Your task to perform on an android device: turn off sleep mode Image 0: 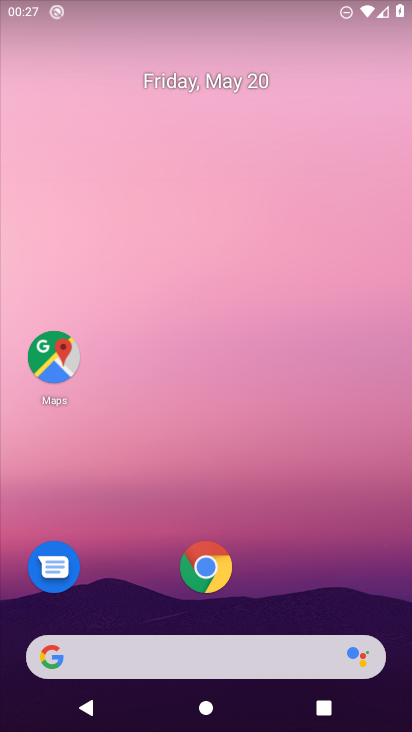
Step 0: drag from (250, 615) to (292, 45)
Your task to perform on an android device: turn off sleep mode Image 1: 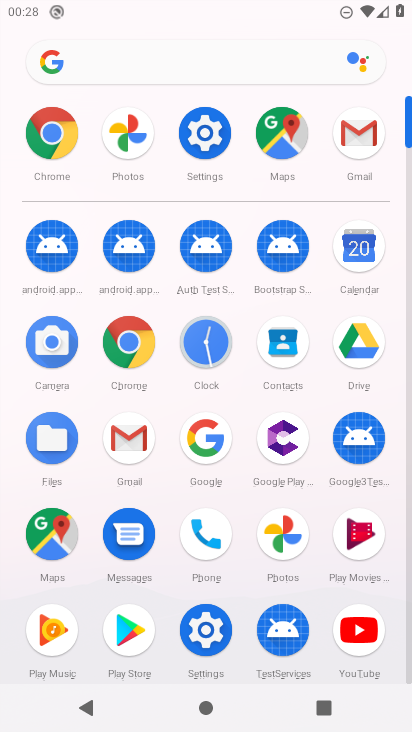
Step 1: click (205, 628)
Your task to perform on an android device: turn off sleep mode Image 2: 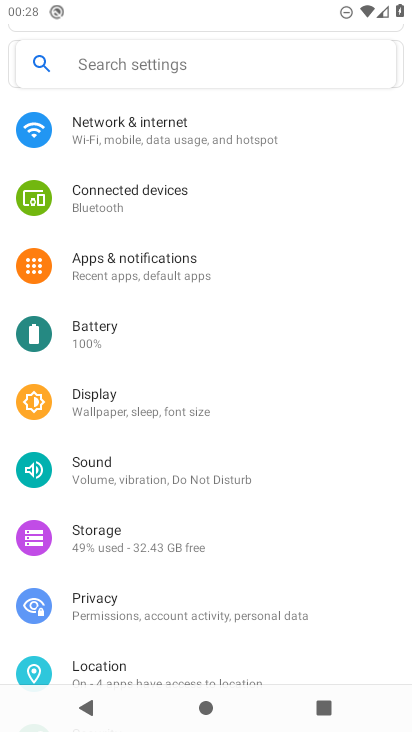
Step 2: click (123, 402)
Your task to perform on an android device: turn off sleep mode Image 3: 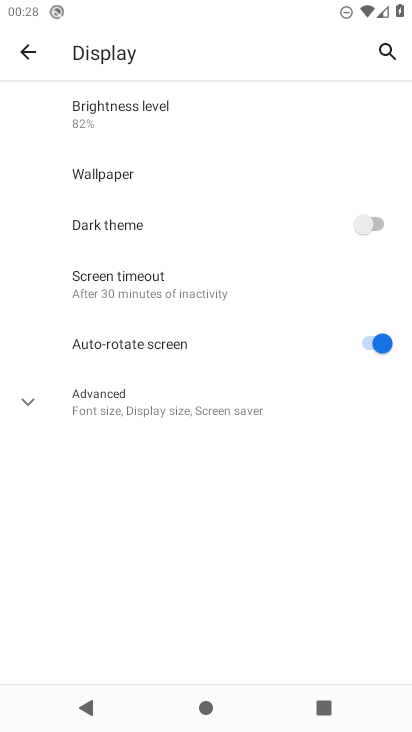
Step 3: click (38, 399)
Your task to perform on an android device: turn off sleep mode Image 4: 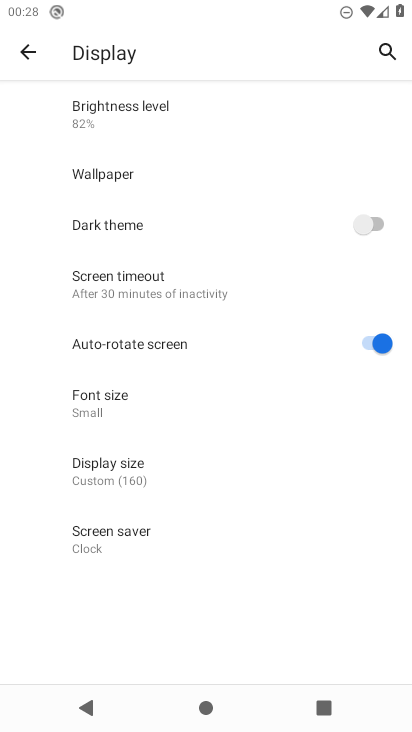
Step 4: task complete